Your task to perform on an android device: toggle improve location accuracy Image 0: 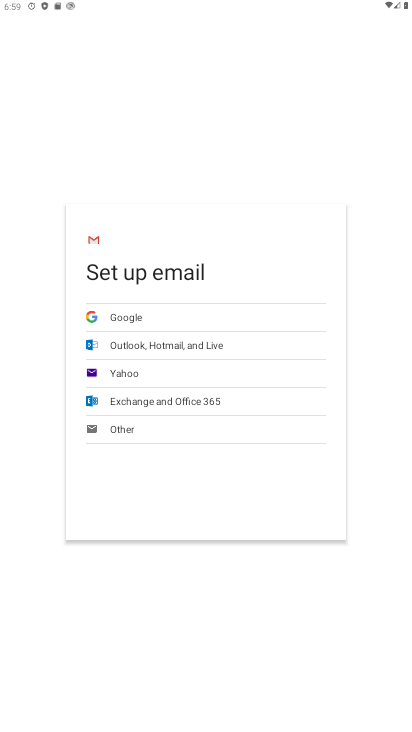
Step 0: press home button
Your task to perform on an android device: toggle improve location accuracy Image 1: 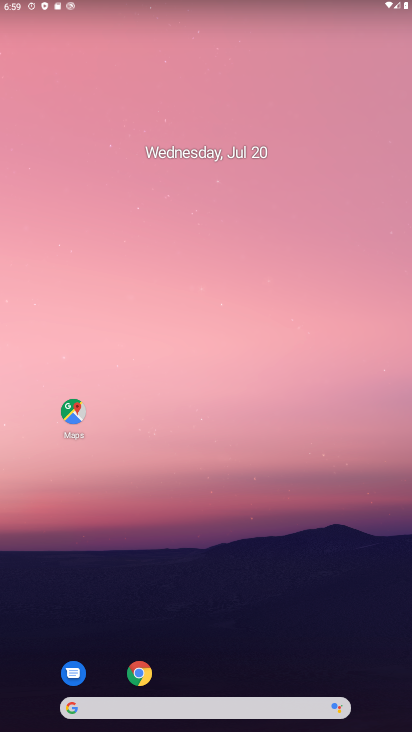
Step 1: drag from (338, 663) to (156, 6)
Your task to perform on an android device: toggle improve location accuracy Image 2: 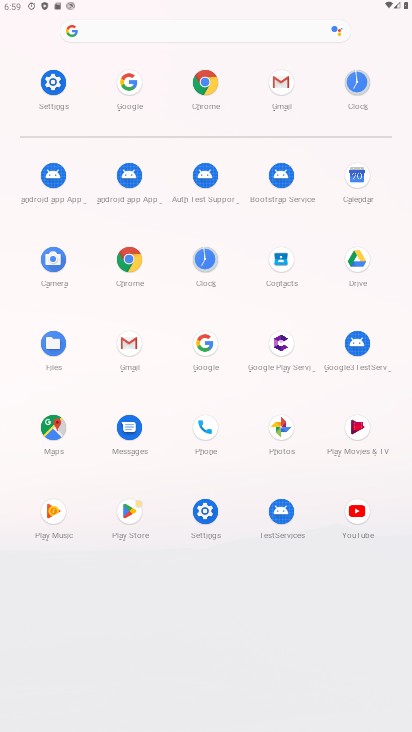
Step 2: click (38, 83)
Your task to perform on an android device: toggle improve location accuracy Image 3: 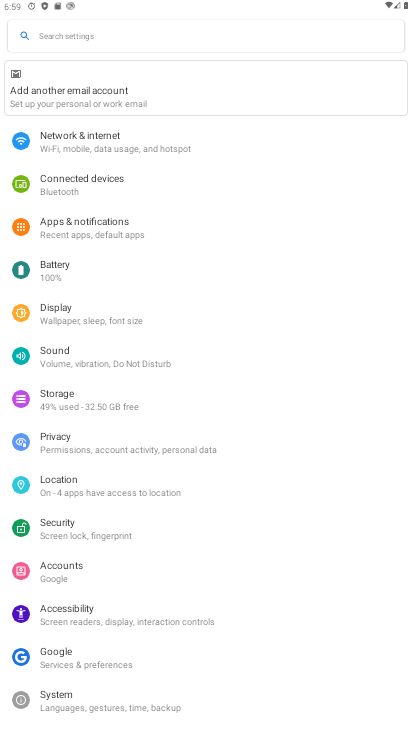
Step 3: click (72, 490)
Your task to perform on an android device: toggle improve location accuracy Image 4: 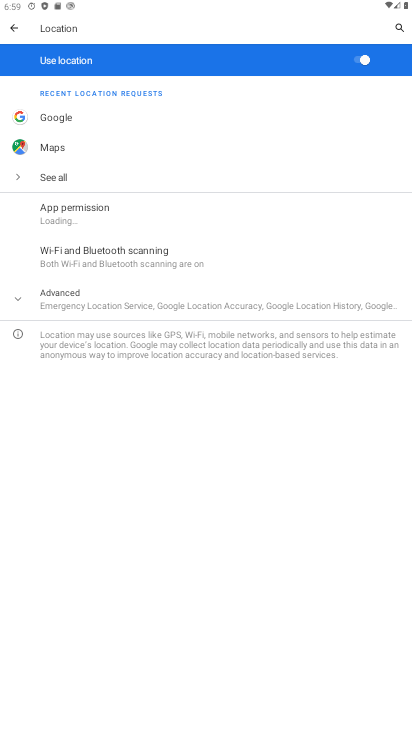
Step 4: click (78, 288)
Your task to perform on an android device: toggle improve location accuracy Image 5: 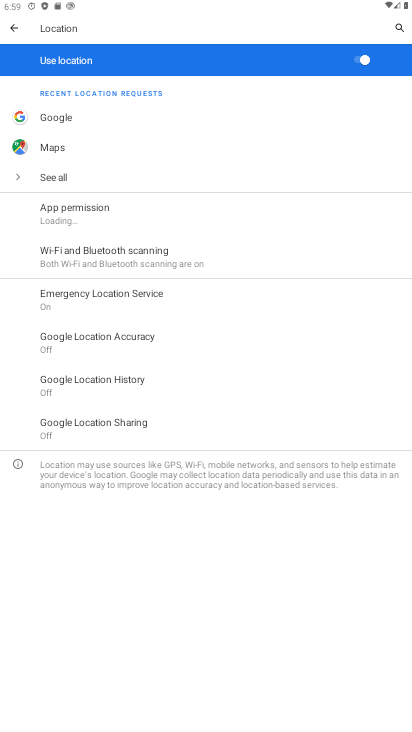
Step 5: click (135, 349)
Your task to perform on an android device: toggle improve location accuracy Image 6: 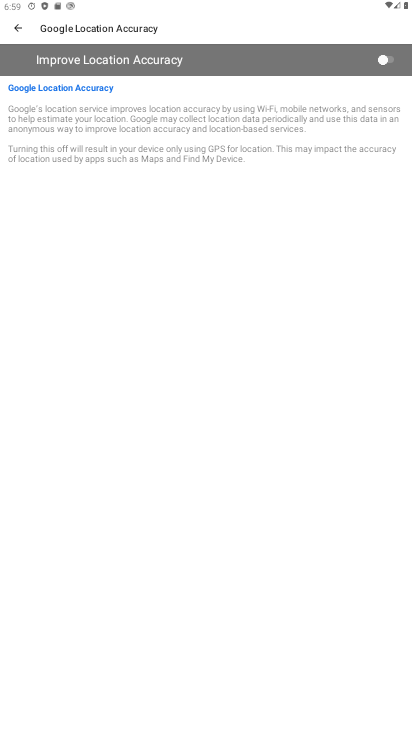
Step 6: click (376, 63)
Your task to perform on an android device: toggle improve location accuracy Image 7: 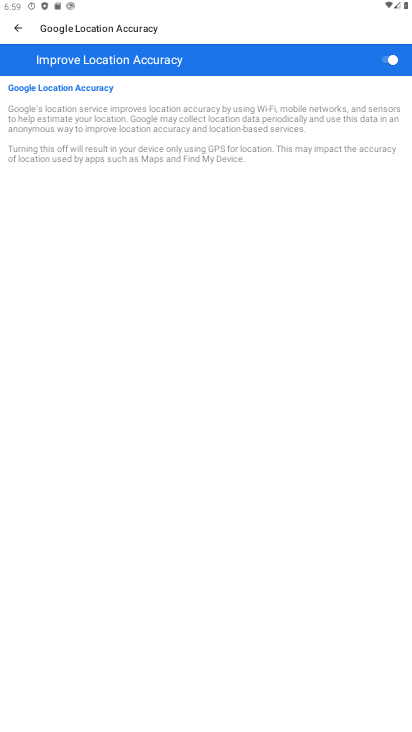
Step 7: task complete